Your task to perform on an android device: Go to Wikipedia Image 0: 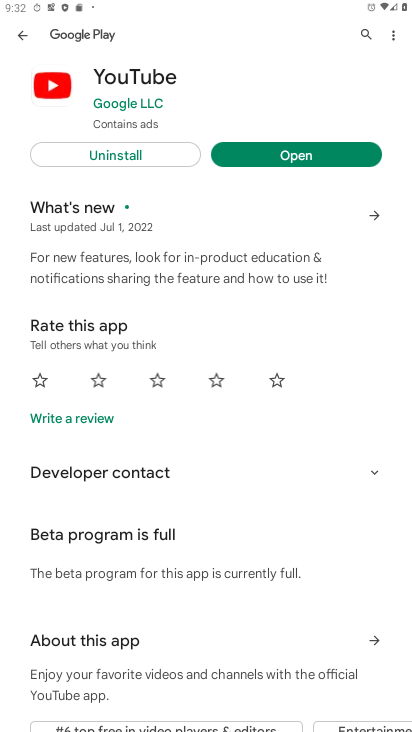
Step 0: drag from (240, 672) to (348, 160)
Your task to perform on an android device: Go to Wikipedia Image 1: 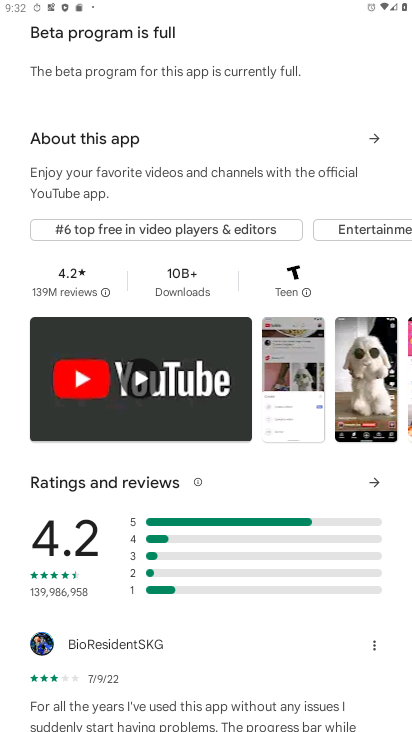
Step 1: press home button
Your task to perform on an android device: Go to Wikipedia Image 2: 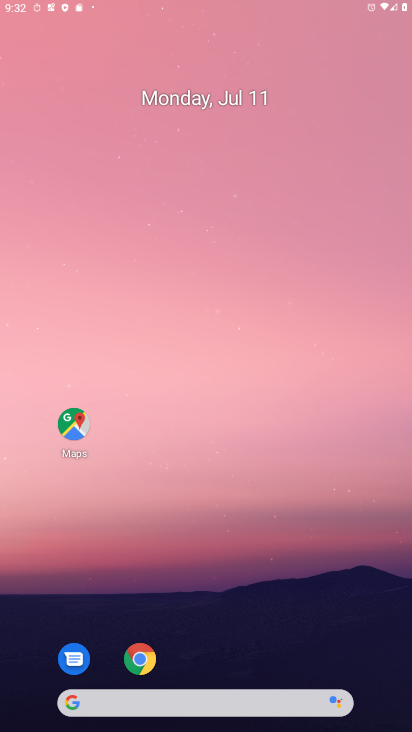
Step 2: drag from (182, 655) to (267, 115)
Your task to perform on an android device: Go to Wikipedia Image 3: 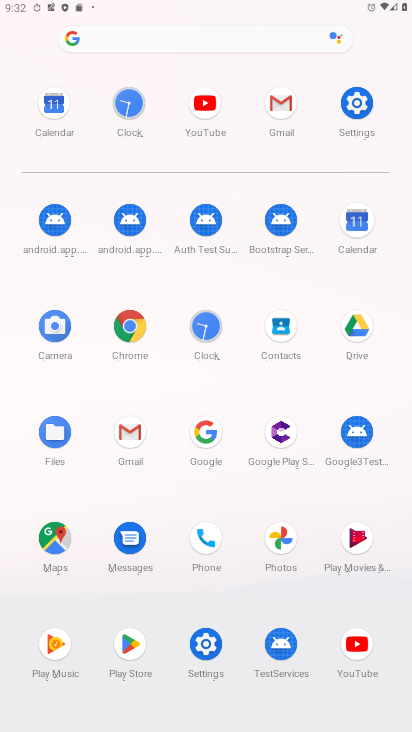
Step 3: click (125, 324)
Your task to perform on an android device: Go to Wikipedia Image 4: 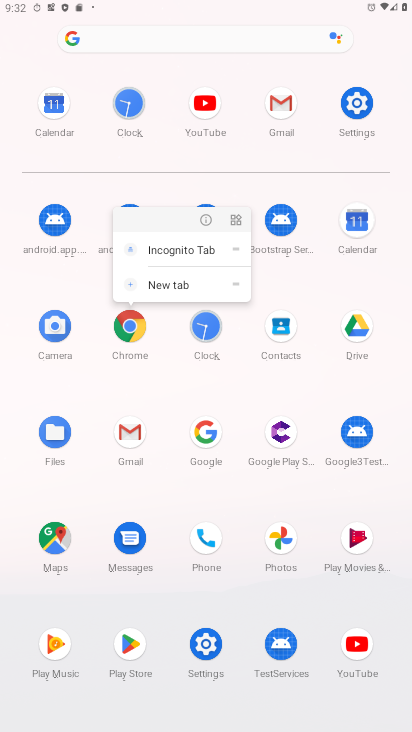
Step 4: click (240, 33)
Your task to perform on an android device: Go to Wikipedia Image 5: 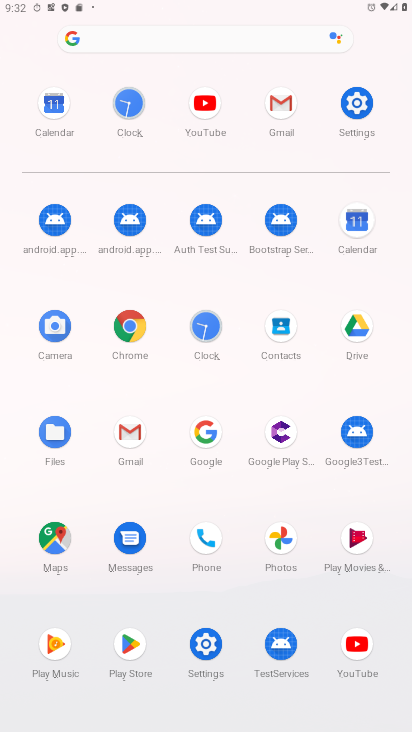
Step 5: click (143, 38)
Your task to perform on an android device: Go to Wikipedia Image 6: 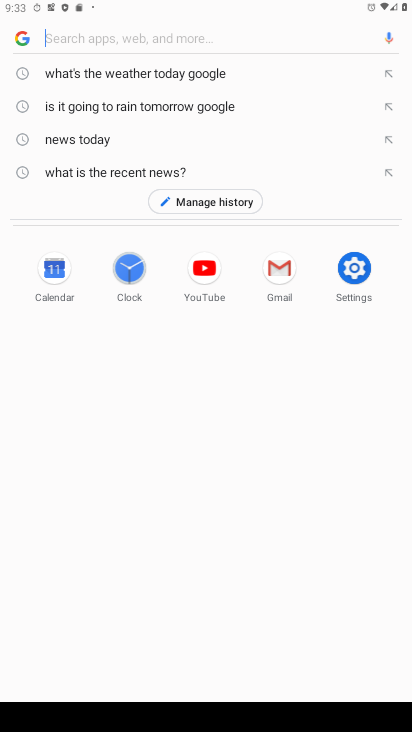
Step 6: type " Wikipedia"
Your task to perform on an android device: Go to Wikipedia Image 7: 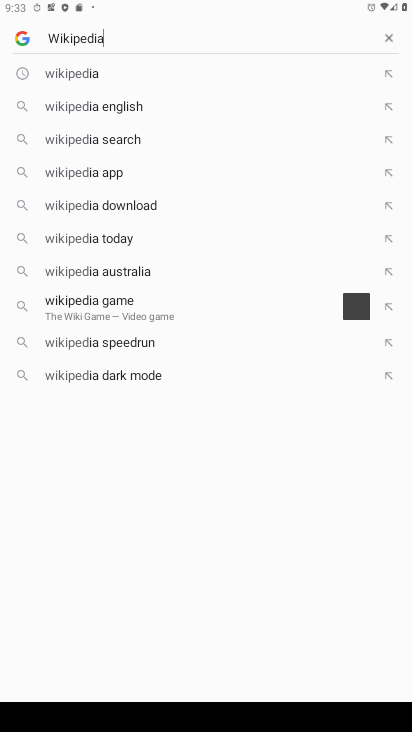
Step 7: type ""
Your task to perform on an android device: Go to Wikipedia Image 8: 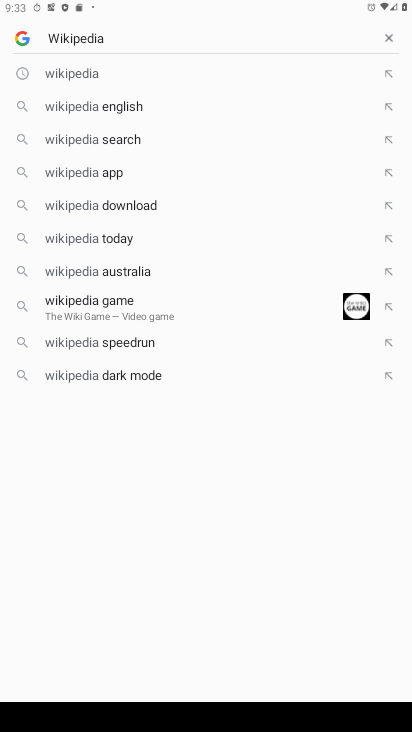
Step 8: click (87, 69)
Your task to perform on an android device: Go to Wikipedia Image 9: 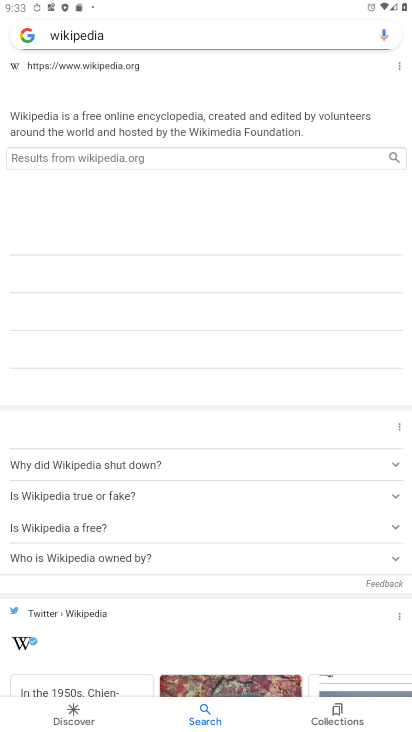
Step 9: drag from (256, 496) to (261, 269)
Your task to perform on an android device: Go to Wikipedia Image 10: 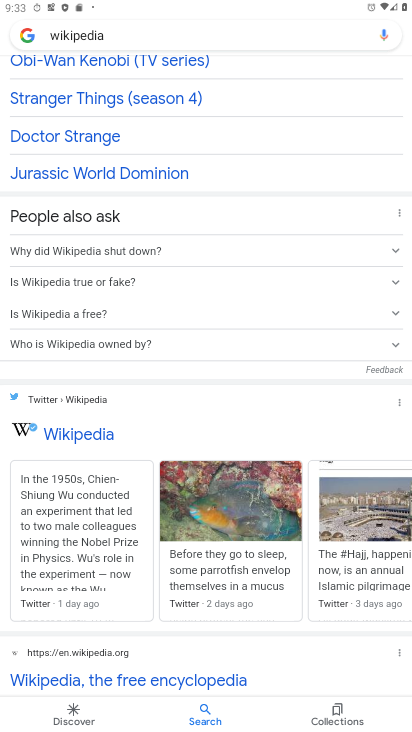
Step 10: drag from (278, 125) to (243, 687)
Your task to perform on an android device: Go to Wikipedia Image 11: 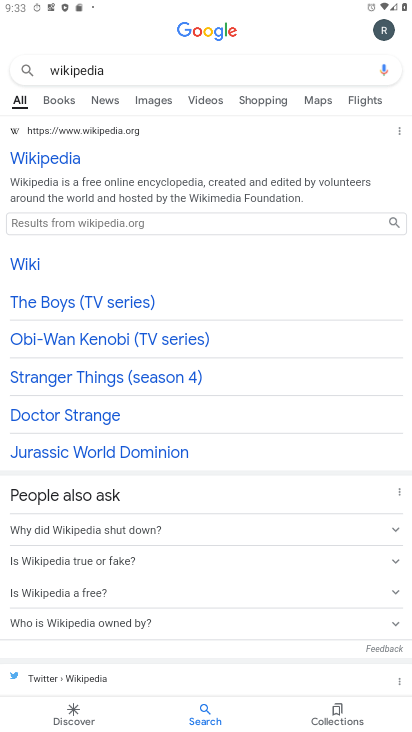
Step 11: click (39, 148)
Your task to perform on an android device: Go to Wikipedia Image 12: 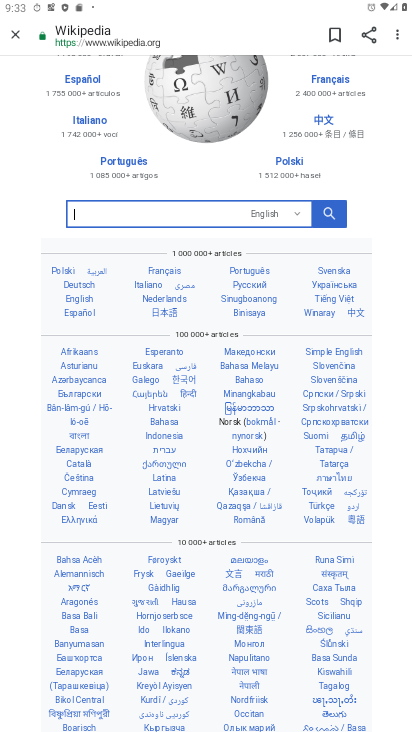
Step 12: task complete